Your task to perform on an android device: toggle sleep mode Image 0: 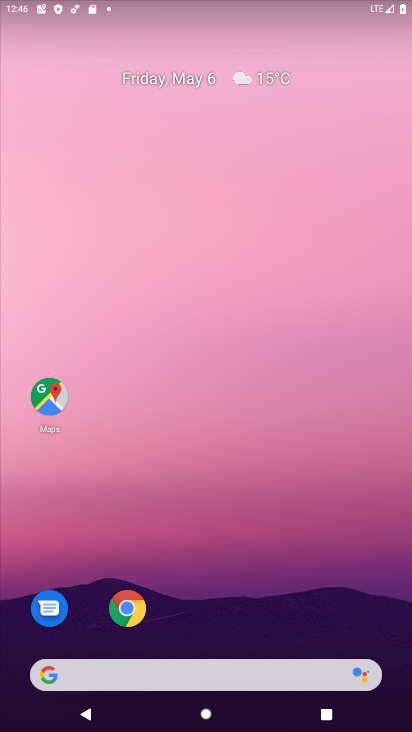
Step 0: drag from (225, 584) to (213, 214)
Your task to perform on an android device: toggle sleep mode Image 1: 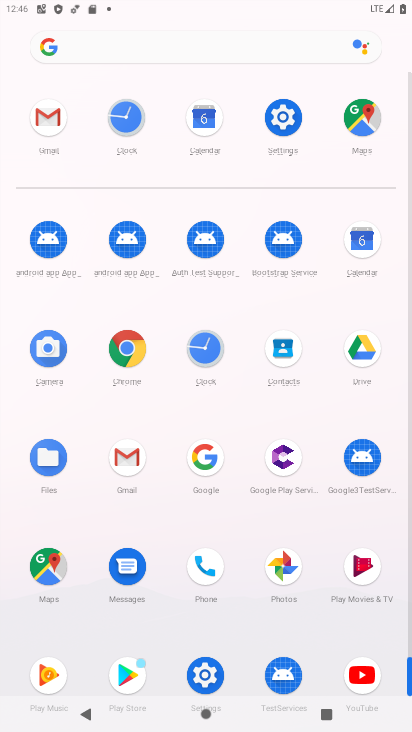
Step 1: click (197, 666)
Your task to perform on an android device: toggle sleep mode Image 2: 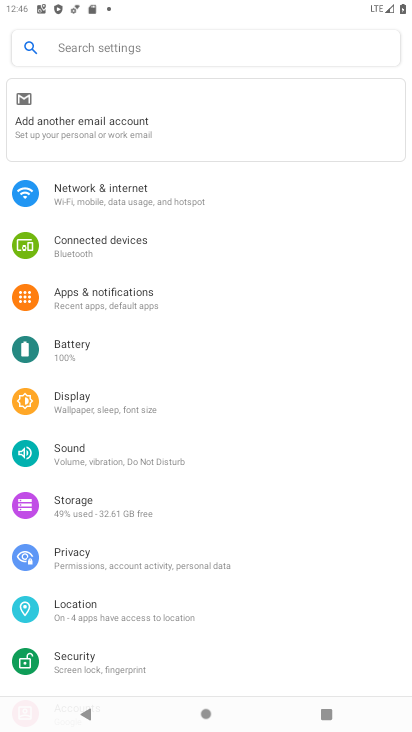
Step 2: click (92, 401)
Your task to perform on an android device: toggle sleep mode Image 3: 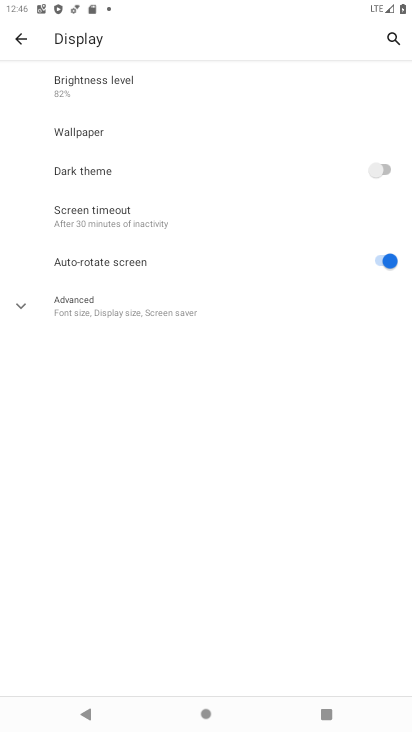
Step 3: click (160, 211)
Your task to perform on an android device: toggle sleep mode Image 4: 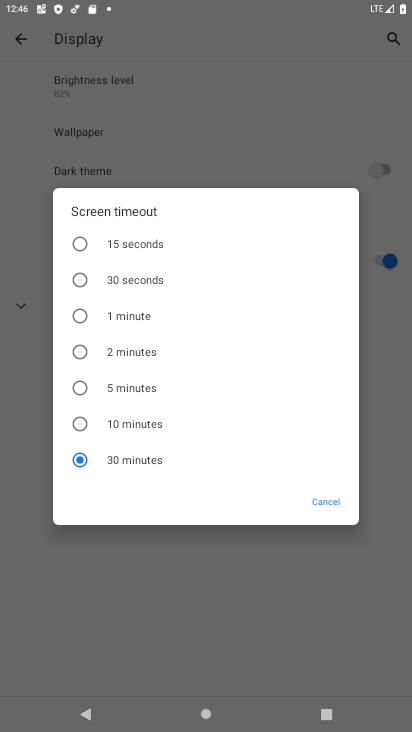
Step 4: task complete